Your task to perform on an android device: Open Youtube and go to the subscriptions tab Image 0: 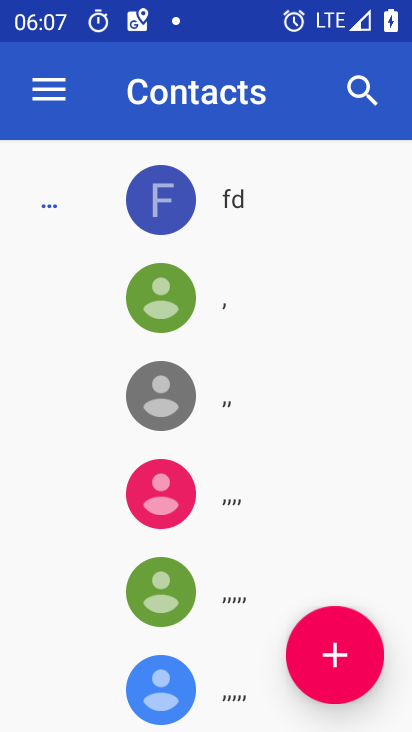
Step 0: press home button
Your task to perform on an android device: Open Youtube and go to the subscriptions tab Image 1: 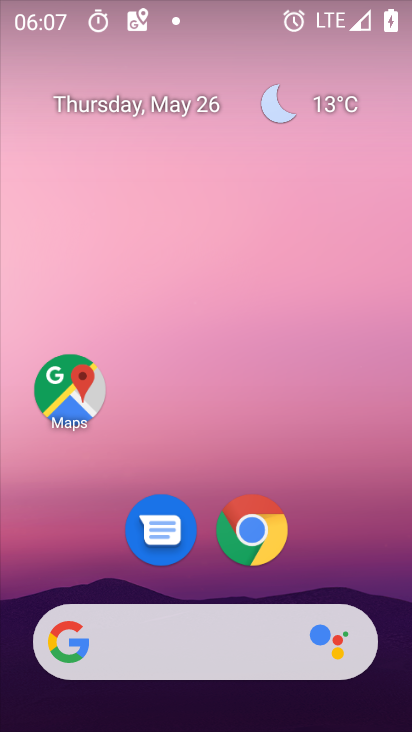
Step 1: drag from (338, 611) to (328, 12)
Your task to perform on an android device: Open Youtube and go to the subscriptions tab Image 2: 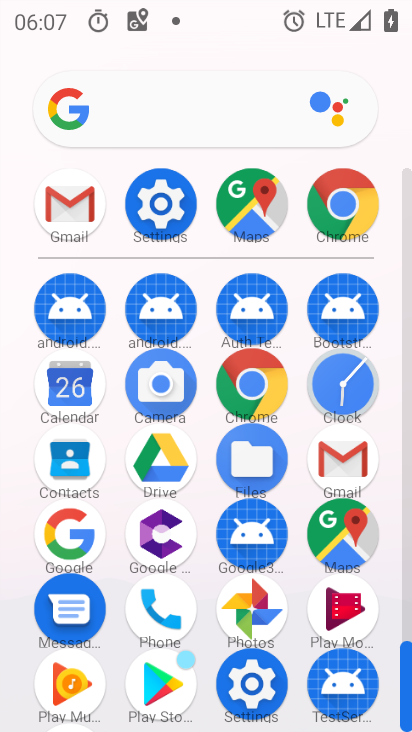
Step 2: drag from (304, 611) to (308, 295)
Your task to perform on an android device: Open Youtube and go to the subscriptions tab Image 3: 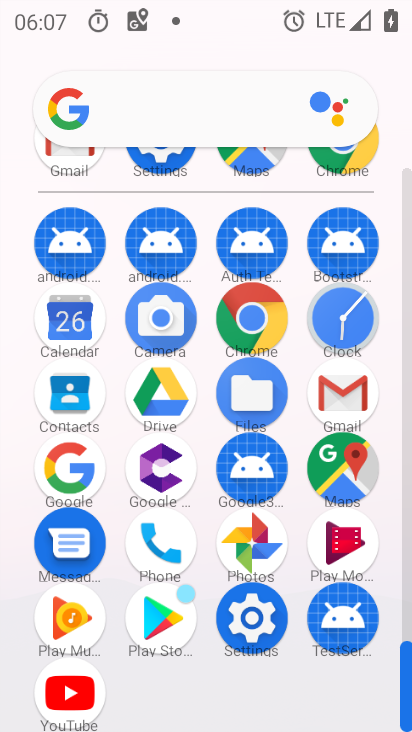
Step 3: click (82, 687)
Your task to perform on an android device: Open Youtube and go to the subscriptions tab Image 4: 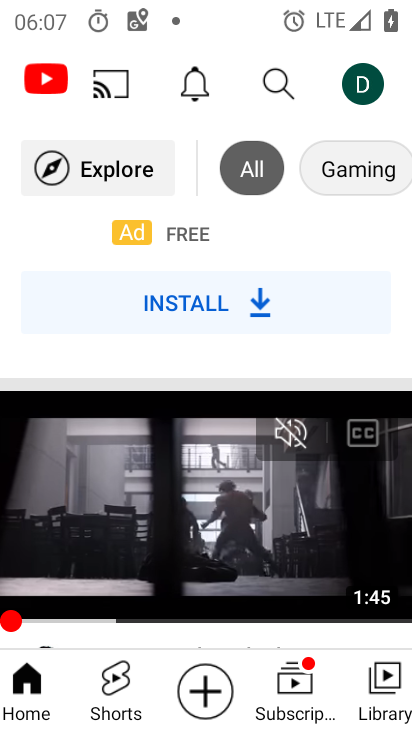
Step 4: click (298, 706)
Your task to perform on an android device: Open Youtube and go to the subscriptions tab Image 5: 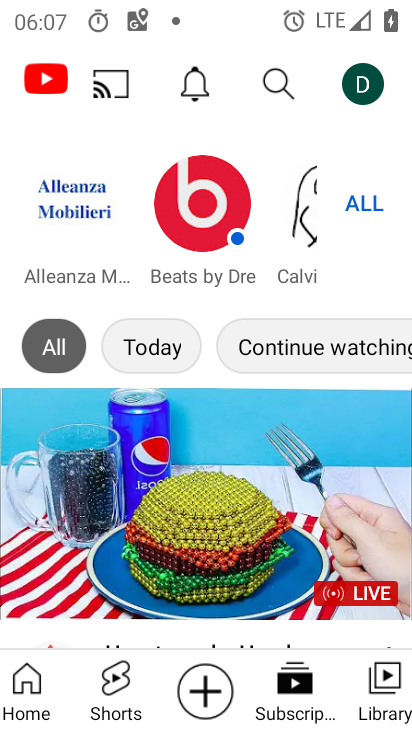
Step 5: task complete